Your task to perform on an android device: Go to CNN.com Image 0: 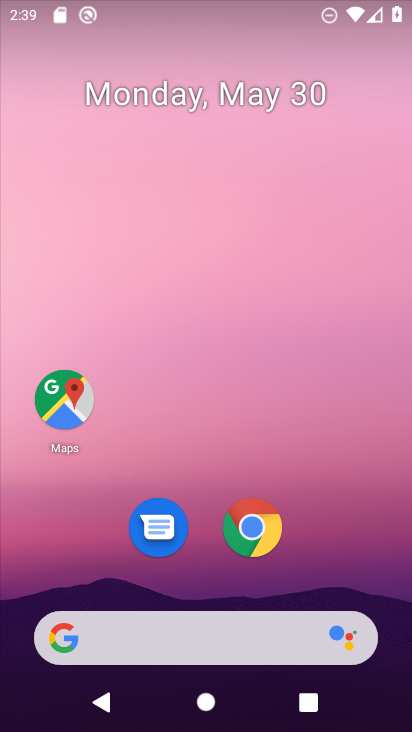
Step 0: drag from (260, 663) to (263, 90)
Your task to perform on an android device: Go to CNN.com Image 1: 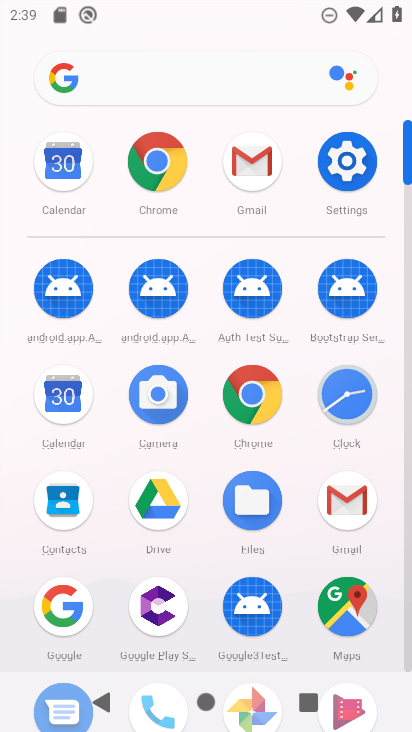
Step 1: click (153, 154)
Your task to perform on an android device: Go to CNN.com Image 2: 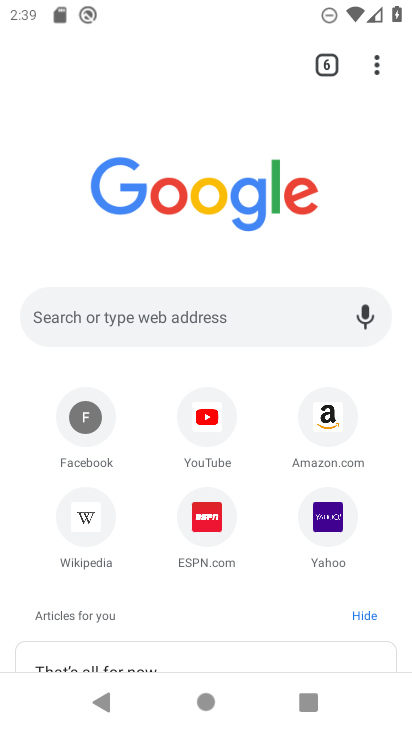
Step 2: click (82, 319)
Your task to perform on an android device: Go to CNN.com Image 3: 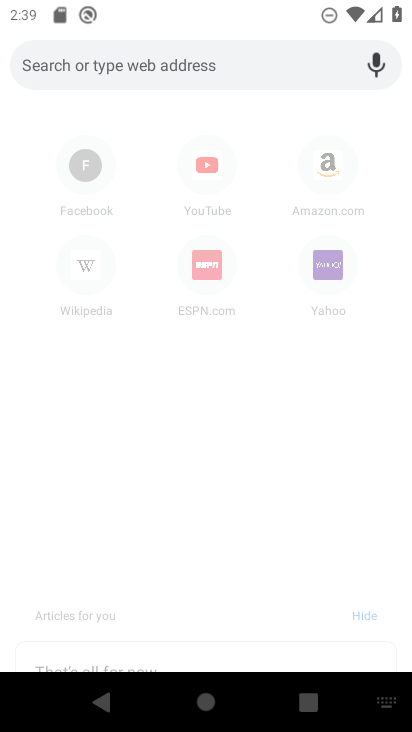
Step 3: type "cnn.com"
Your task to perform on an android device: Go to CNN.com Image 4: 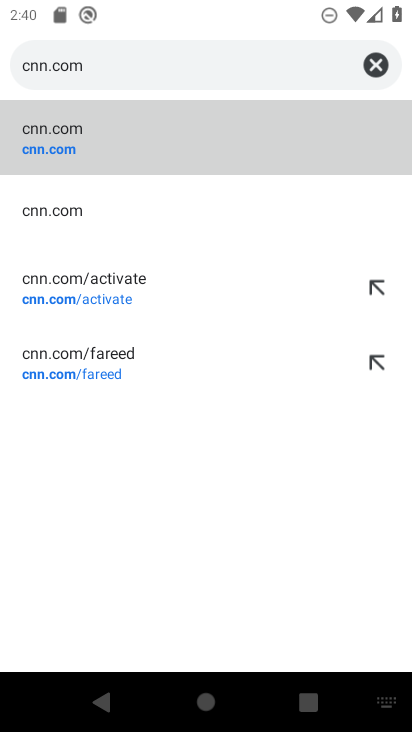
Step 4: click (43, 147)
Your task to perform on an android device: Go to CNN.com Image 5: 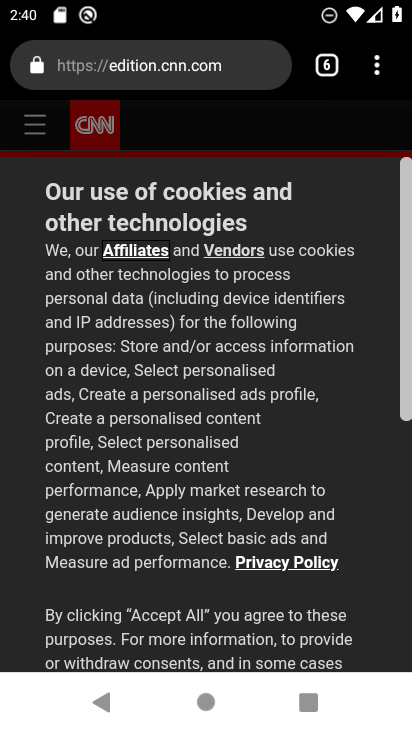
Step 5: task complete